Your task to perform on an android device: Go to settings Image 0: 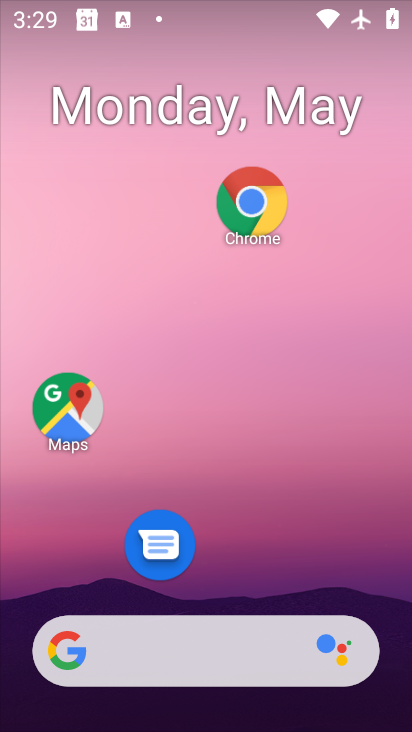
Step 0: drag from (245, 568) to (251, 258)
Your task to perform on an android device: Go to settings Image 1: 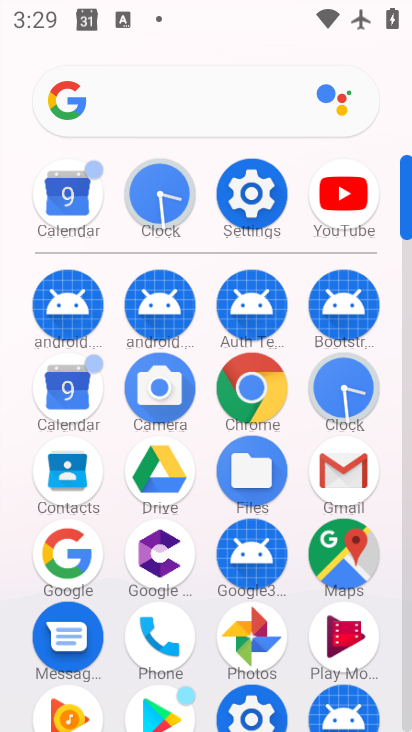
Step 1: click (251, 258)
Your task to perform on an android device: Go to settings Image 2: 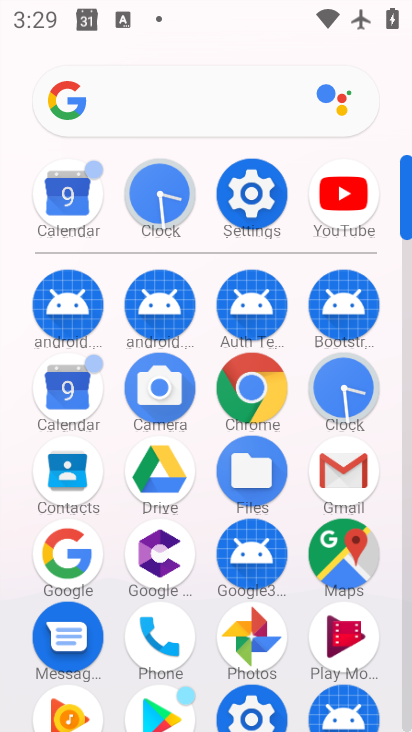
Step 2: click (248, 198)
Your task to perform on an android device: Go to settings Image 3: 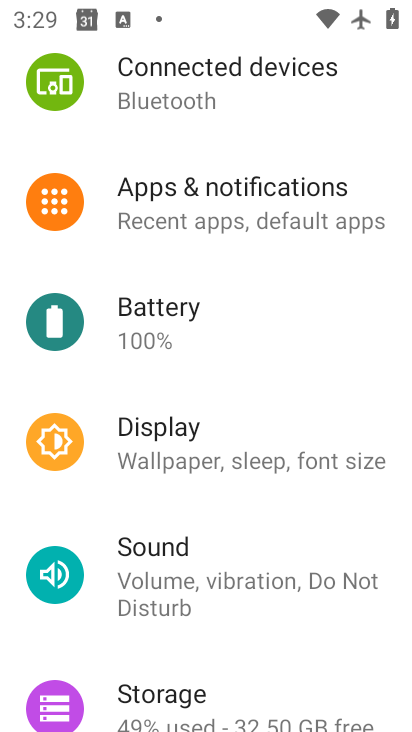
Step 3: task complete